Your task to perform on an android device: Open Google Chrome and click the shortcut for Amazon.com Image 0: 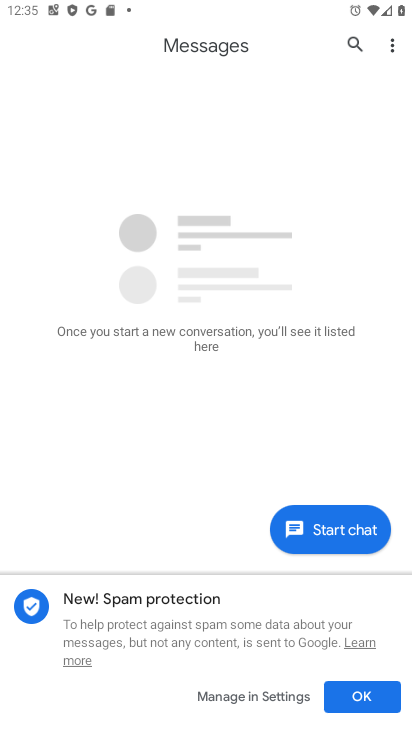
Step 0: press home button
Your task to perform on an android device: Open Google Chrome and click the shortcut for Amazon.com Image 1: 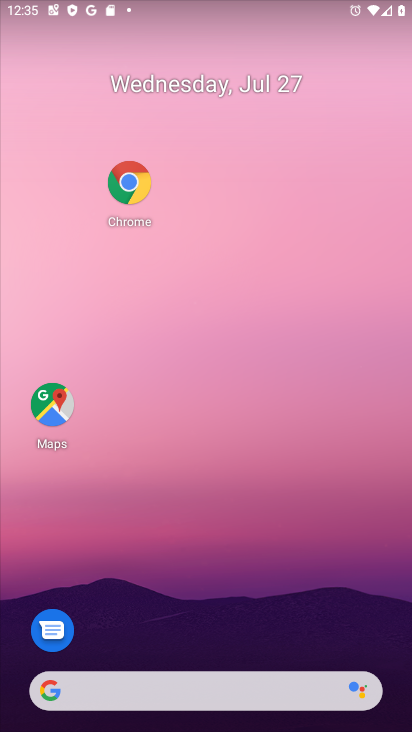
Step 1: click (131, 185)
Your task to perform on an android device: Open Google Chrome and click the shortcut for Amazon.com Image 2: 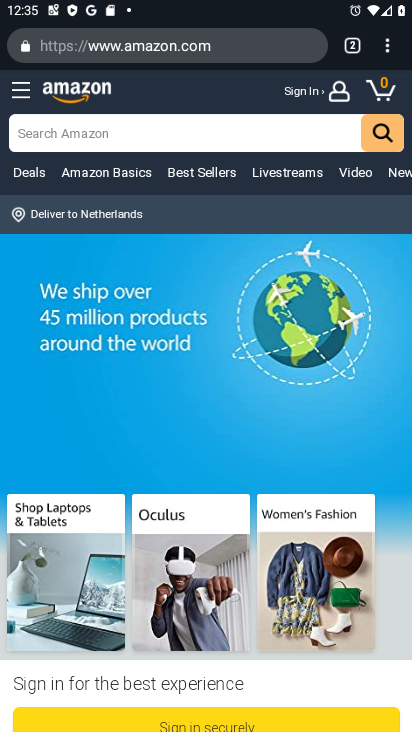
Step 2: click (392, 41)
Your task to perform on an android device: Open Google Chrome and click the shortcut for Amazon.com Image 3: 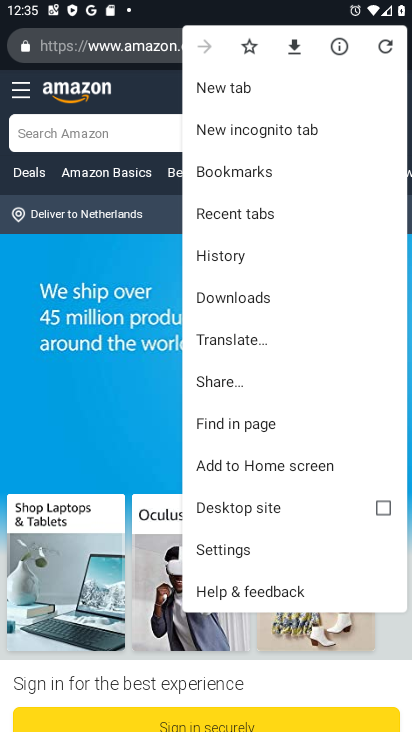
Step 3: click (260, 94)
Your task to perform on an android device: Open Google Chrome and click the shortcut for Amazon.com Image 4: 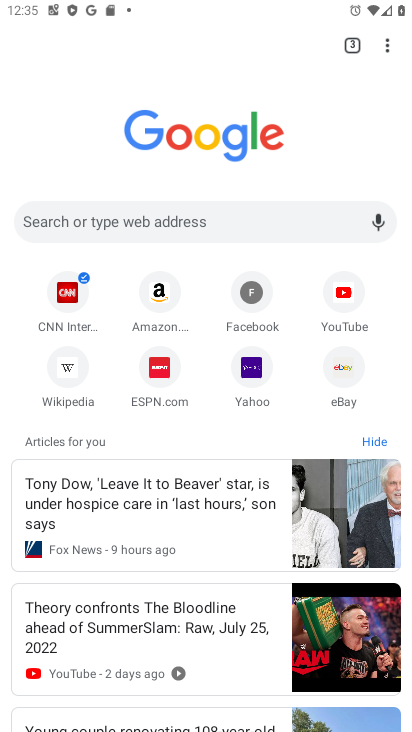
Step 4: click (158, 298)
Your task to perform on an android device: Open Google Chrome and click the shortcut for Amazon.com Image 5: 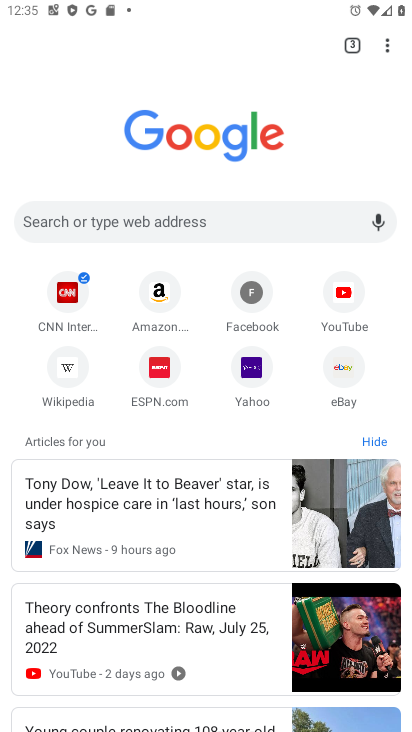
Step 5: click (158, 298)
Your task to perform on an android device: Open Google Chrome and click the shortcut for Amazon.com Image 6: 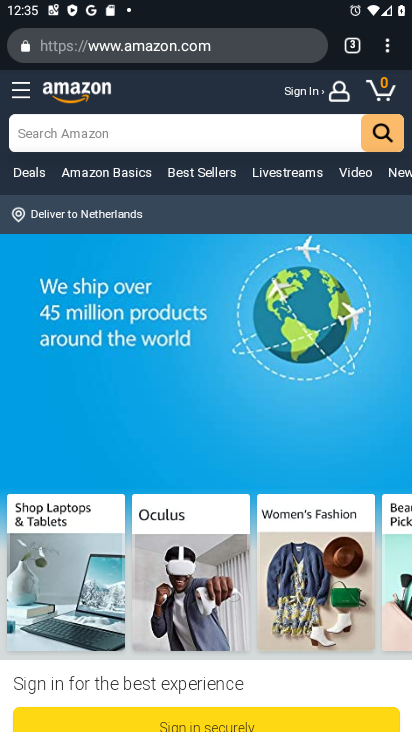
Step 6: task complete